Your task to perform on an android device: Show me the alarms in the clock app Image 0: 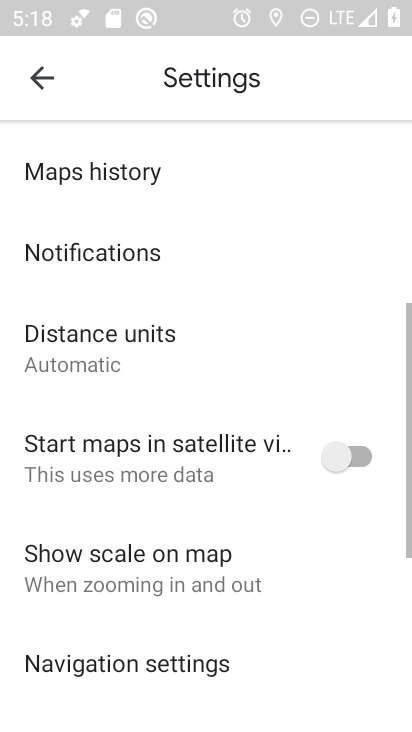
Step 0: press home button
Your task to perform on an android device: Show me the alarms in the clock app Image 1: 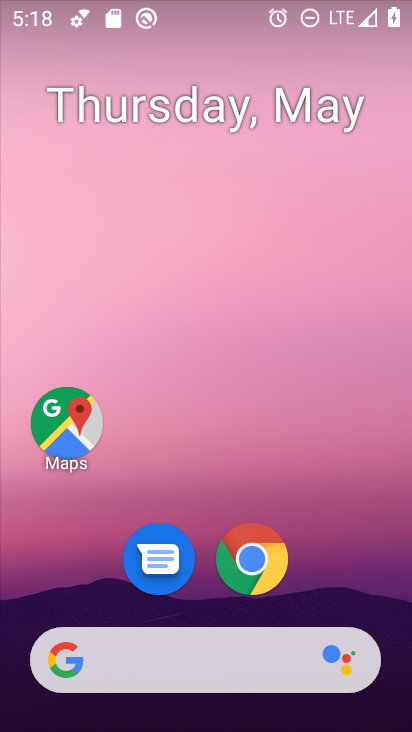
Step 1: drag from (336, 492) to (214, 0)
Your task to perform on an android device: Show me the alarms in the clock app Image 2: 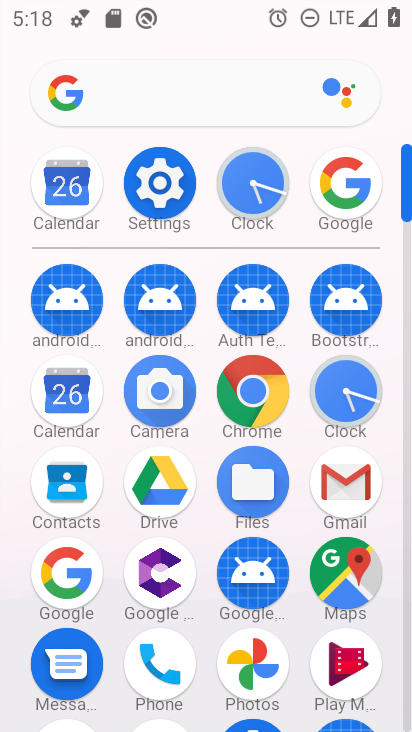
Step 2: click (329, 390)
Your task to perform on an android device: Show me the alarms in the clock app Image 3: 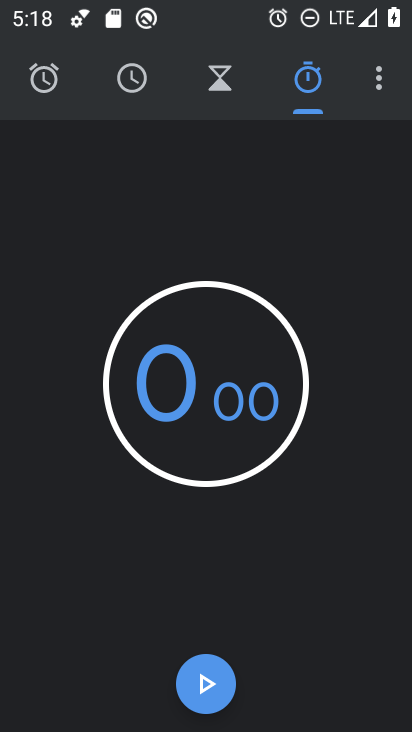
Step 3: click (56, 84)
Your task to perform on an android device: Show me the alarms in the clock app Image 4: 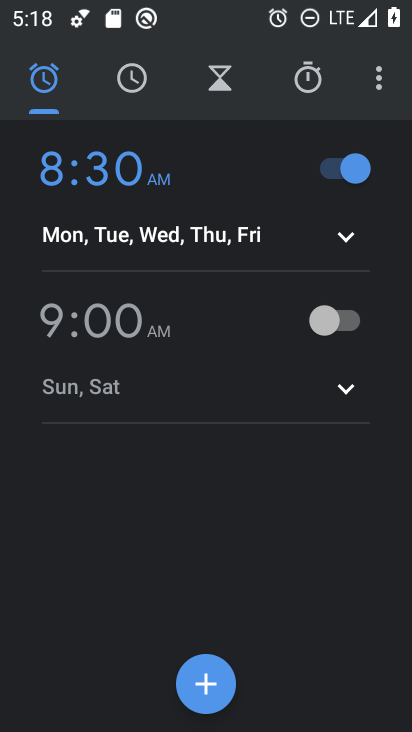
Step 4: task complete